Your task to perform on an android device: Open the calendar app, open the side menu, and click the "Day" option Image 0: 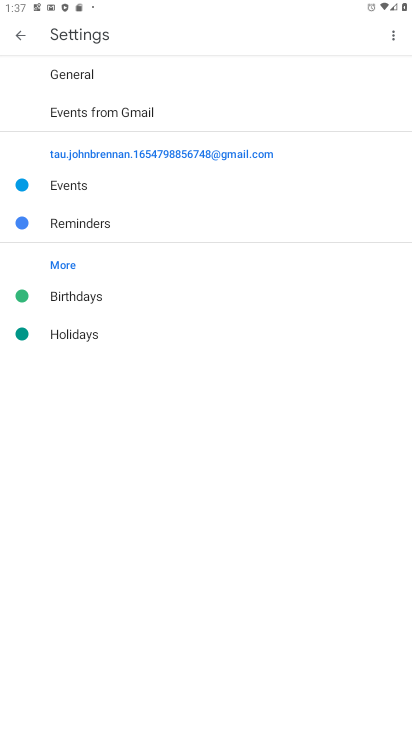
Step 0: press home button
Your task to perform on an android device: Open the calendar app, open the side menu, and click the "Day" option Image 1: 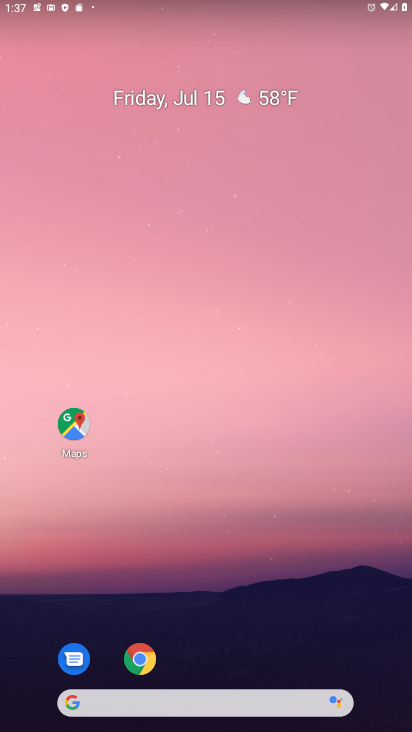
Step 1: drag from (228, 729) to (229, 174)
Your task to perform on an android device: Open the calendar app, open the side menu, and click the "Day" option Image 2: 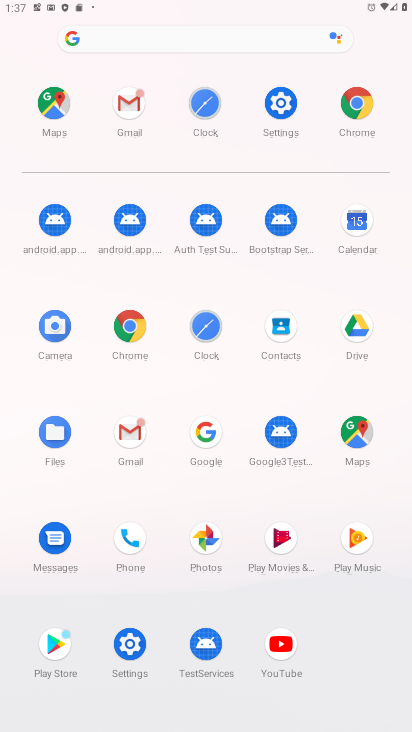
Step 2: click (358, 229)
Your task to perform on an android device: Open the calendar app, open the side menu, and click the "Day" option Image 3: 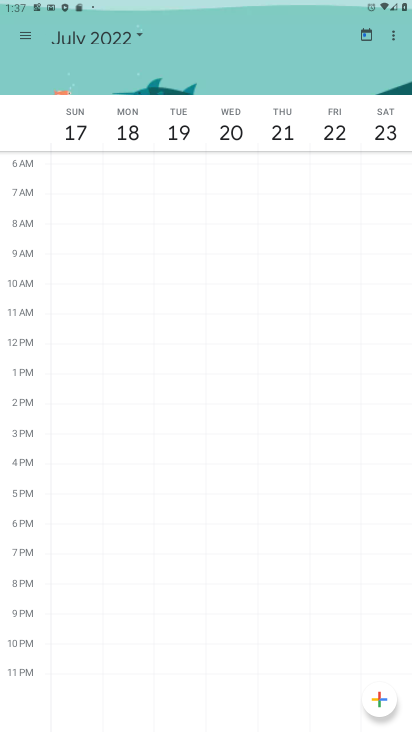
Step 3: click (22, 32)
Your task to perform on an android device: Open the calendar app, open the side menu, and click the "Day" option Image 4: 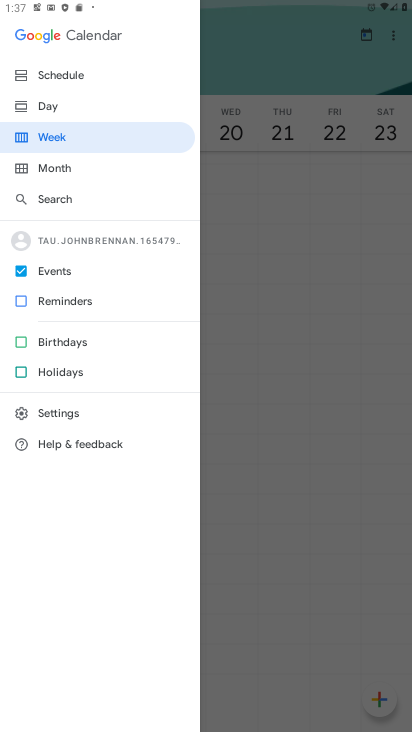
Step 4: click (49, 109)
Your task to perform on an android device: Open the calendar app, open the side menu, and click the "Day" option Image 5: 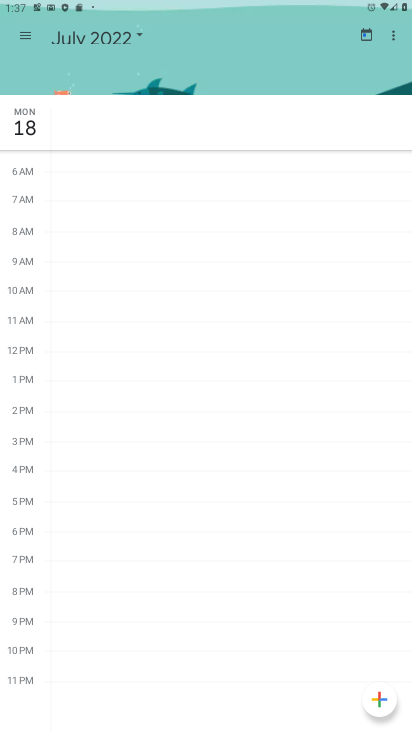
Step 5: task complete